Your task to perform on an android device: What's the weather? Image 0: 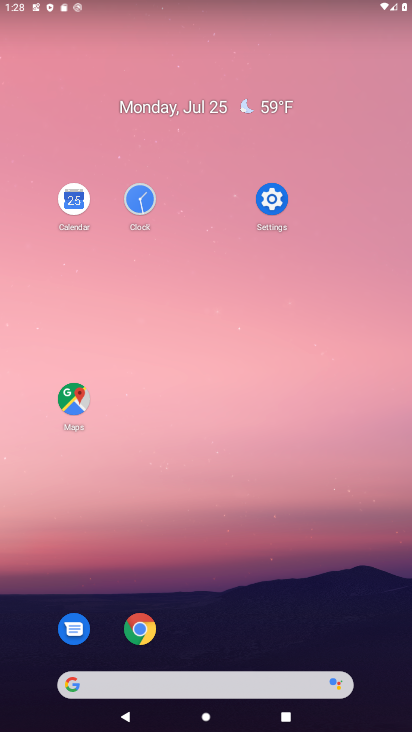
Step 0: drag from (228, 642) to (278, 150)
Your task to perform on an android device: What's the weather? Image 1: 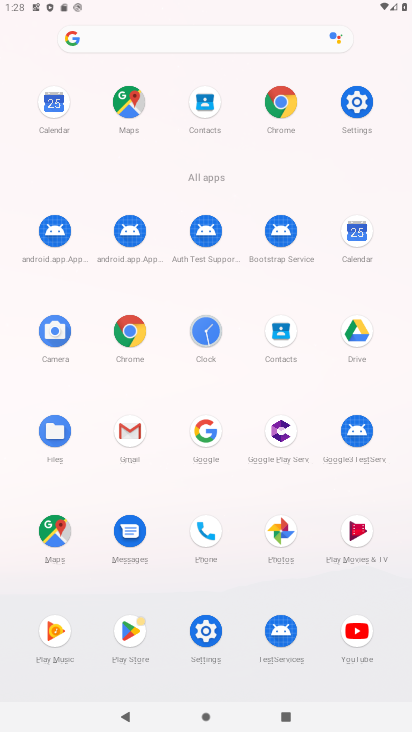
Step 1: drag from (196, 442) to (79, 271)
Your task to perform on an android device: What's the weather? Image 2: 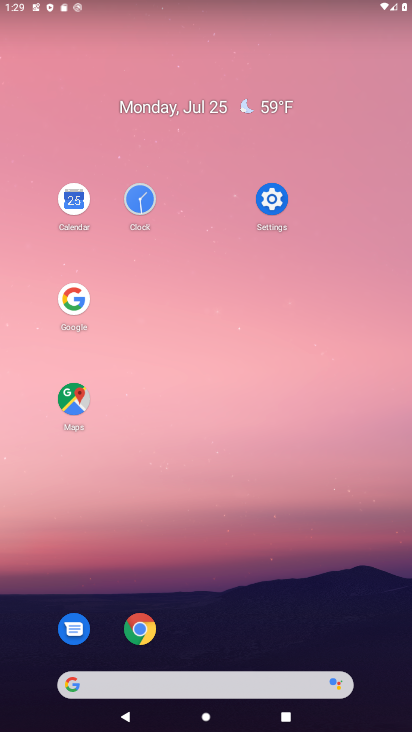
Step 2: click (77, 297)
Your task to perform on an android device: What's the weather? Image 3: 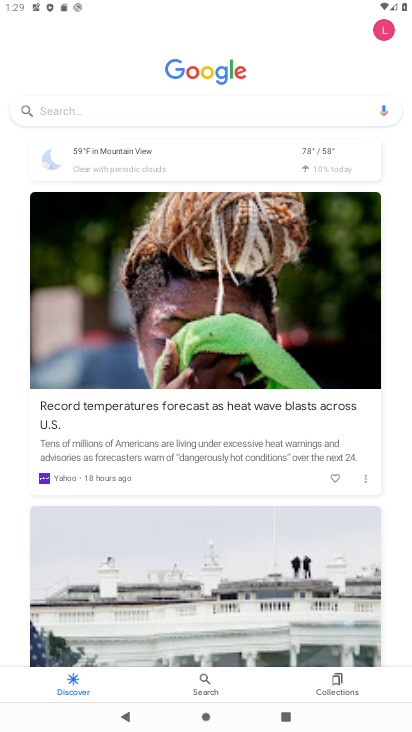
Step 3: click (91, 119)
Your task to perform on an android device: What's the weather? Image 4: 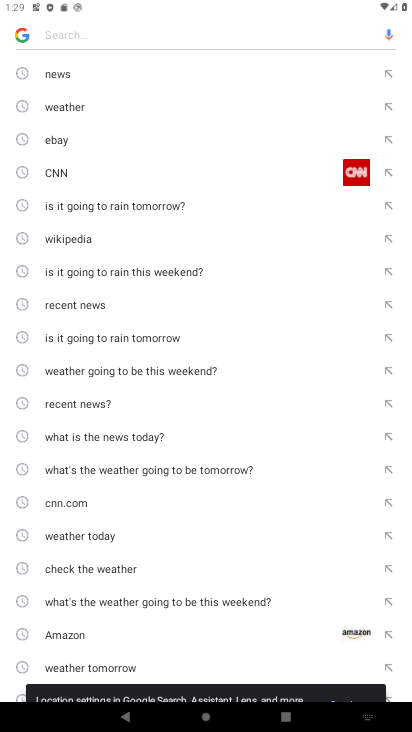
Step 4: click (83, 111)
Your task to perform on an android device: What's the weather? Image 5: 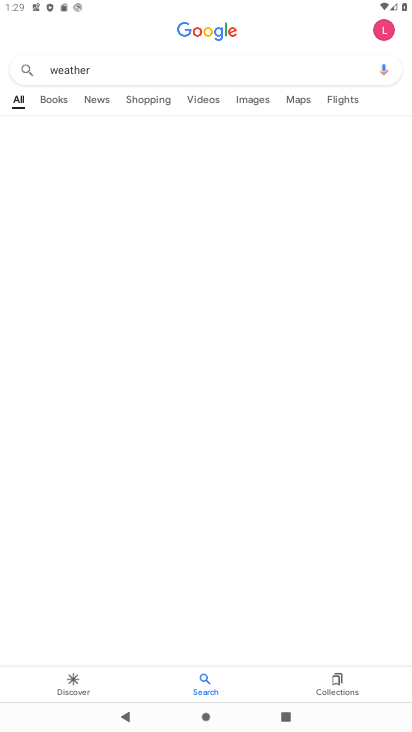
Step 5: task complete